Your task to perform on an android device: set the stopwatch Image 0: 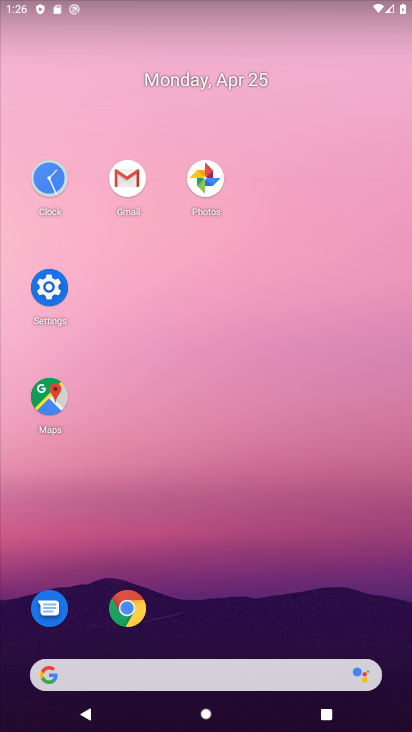
Step 0: drag from (267, 596) to (324, 135)
Your task to perform on an android device: set the stopwatch Image 1: 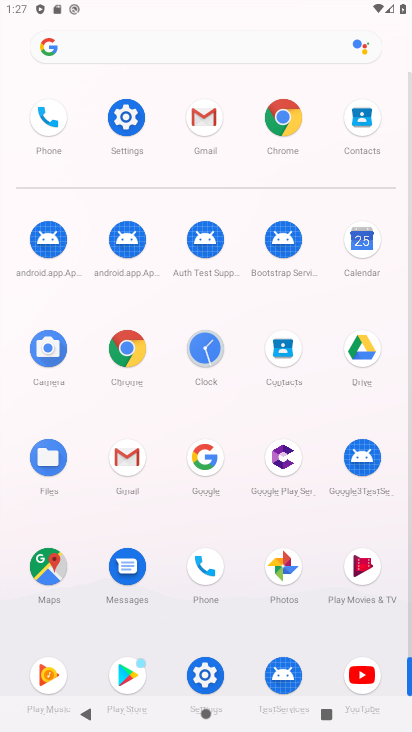
Step 1: drag from (207, 355) to (143, 277)
Your task to perform on an android device: set the stopwatch Image 2: 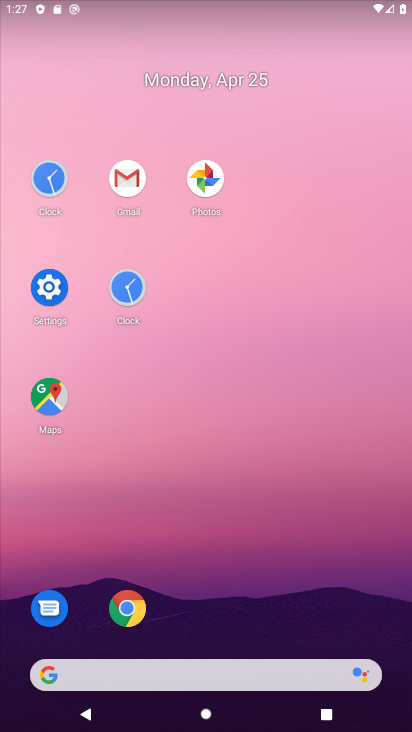
Step 2: click (134, 288)
Your task to perform on an android device: set the stopwatch Image 3: 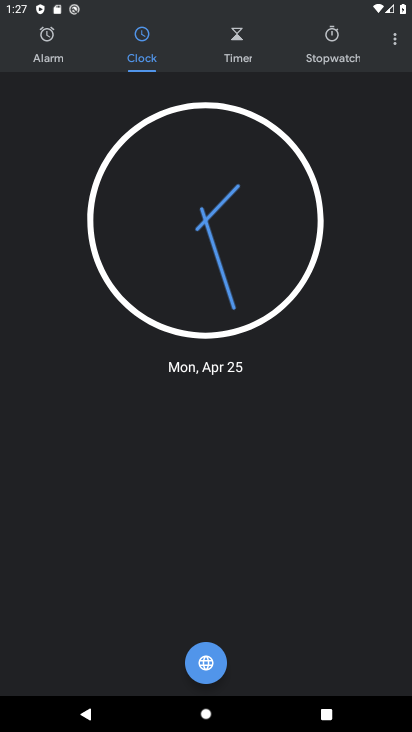
Step 3: click (339, 58)
Your task to perform on an android device: set the stopwatch Image 4: 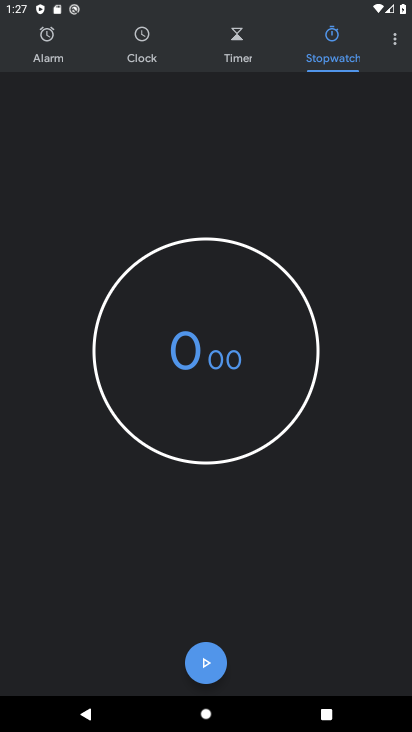
Step 4: click (208, 660)
Your task to perform on an android device: set the stopwatch Image 5: 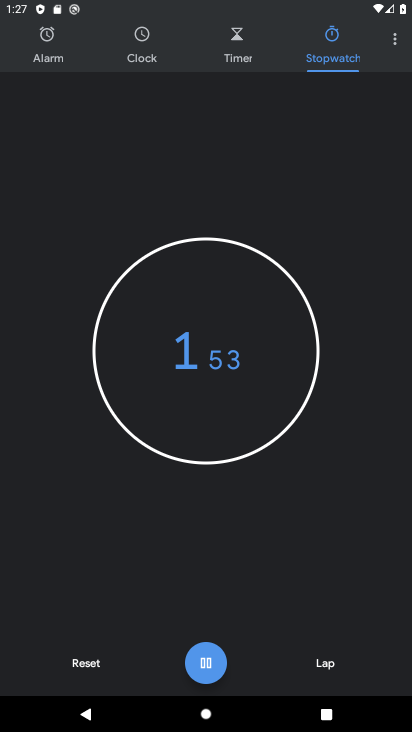
Step 5: task complete